Your task to perform on an android device: Search for vegetarian restaurants on Maps Image 0: 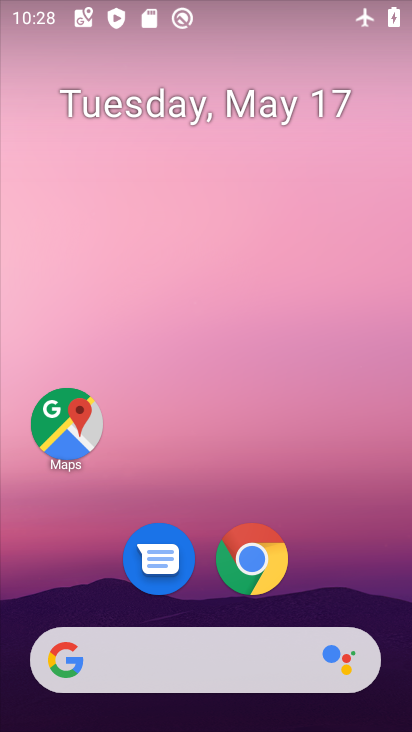
Step 0: click (72, 420)
Your task to perform on an android device: Search for vegetarian restaurants on Maps Image 1: 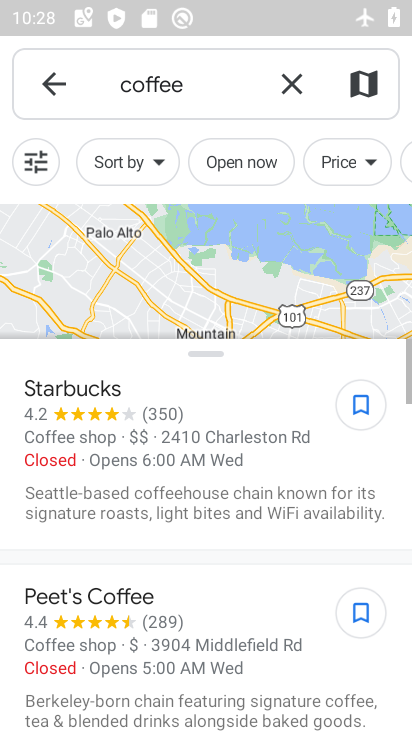
Step 1: click (302, 83)
Your task to perform on an android device: Search for vegetarian restaurants on Maps Image 2: 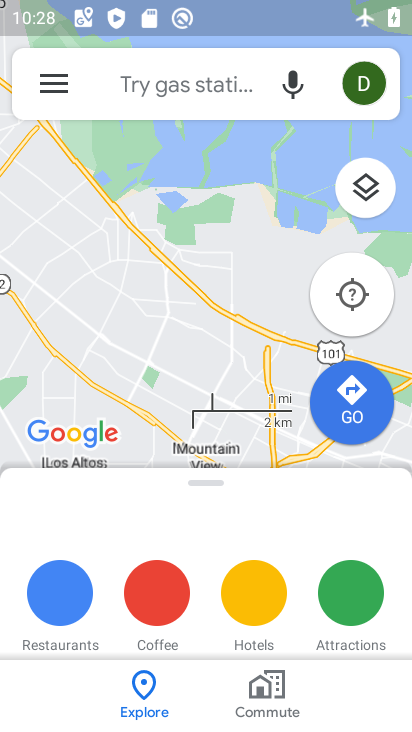
Step 2: click (181, 88)
Your task to perform on an android device: Search for vegetarian restaurants on Maps Image 3: 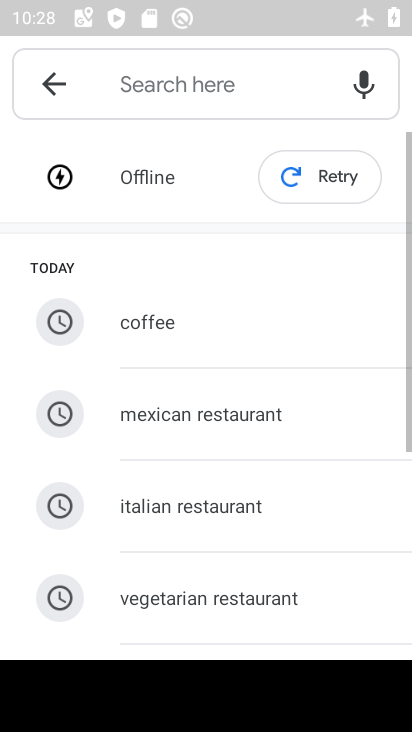
Step 3: click (248, 607)
Your task to perform on an android device: Search for vegetarian restaurants on Maps Image 4: 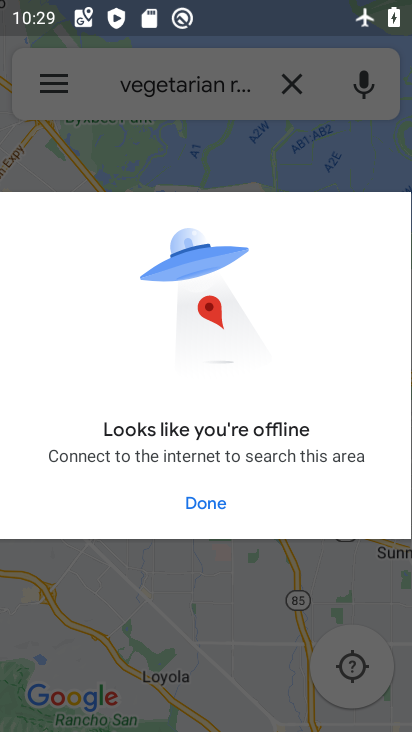
Step 4: click (194, 501)
Your task to perform on an android device: Search for vegetarian restaurants on Maps Image 5: 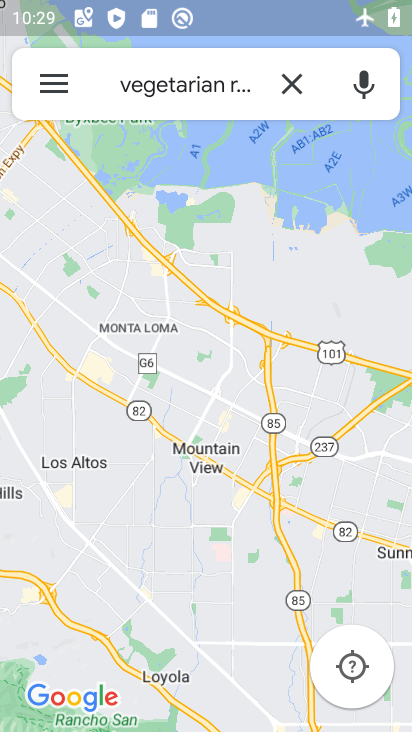
Step 5: task complete